Your task to perform on an android device: change notifications settings Image 0: 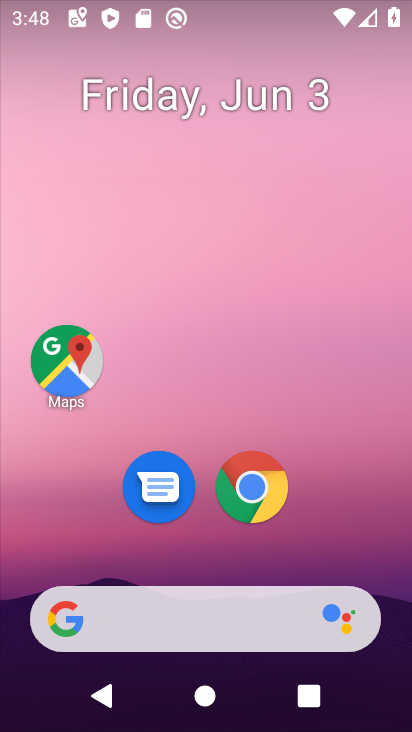
Step 0: drag from (312, 36) to (310, 0)
Your task to perform on an android device: change notifications settings Image 1: 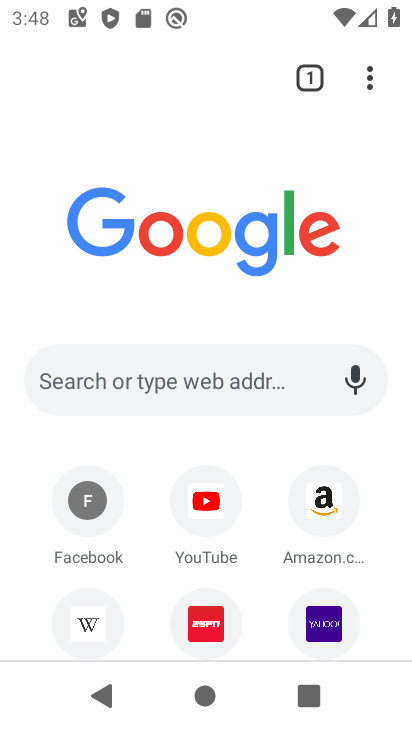
Step 1: drag from (374, 64) to (221, 558)
Your task to perform on an android device: change notifications settings Image 2: 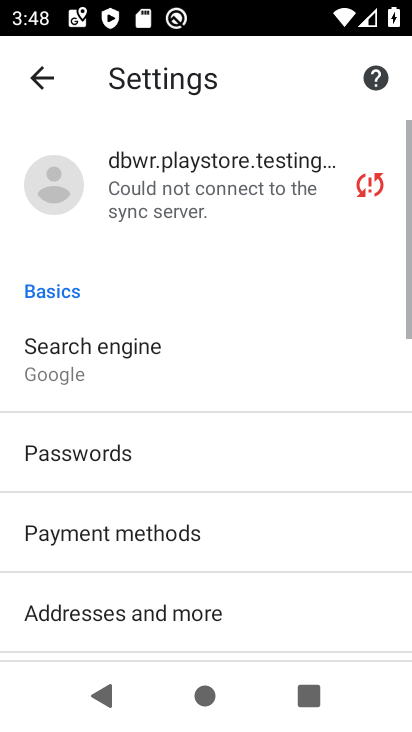
Step 2: drag from (194, 561) to (263, 159)
Your task to perform on an android device: change notifications settings Image 3: 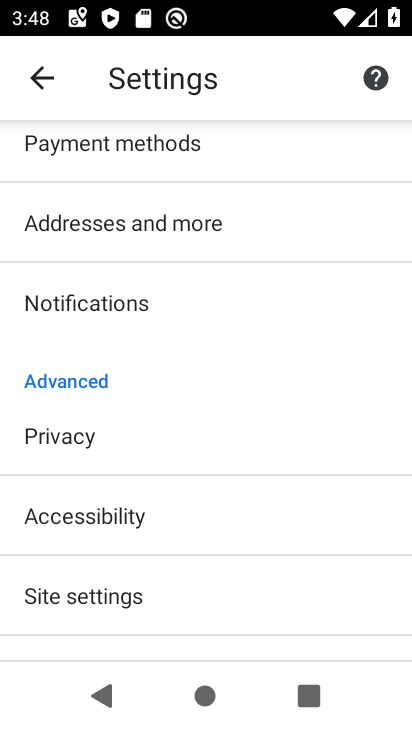
Step 3: click (164, 307)
Your task to perform on an android device: change notifications settings Image 4: 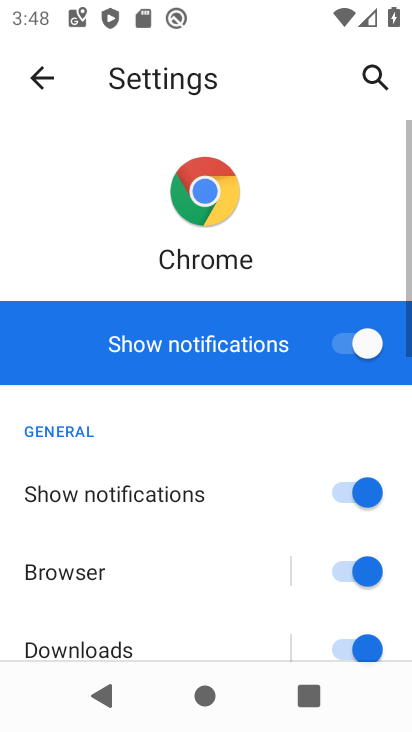
Step 4: drag from (220, 575) to (260, 200)
Your task to perform on an android device: change notifications settings Image 5: 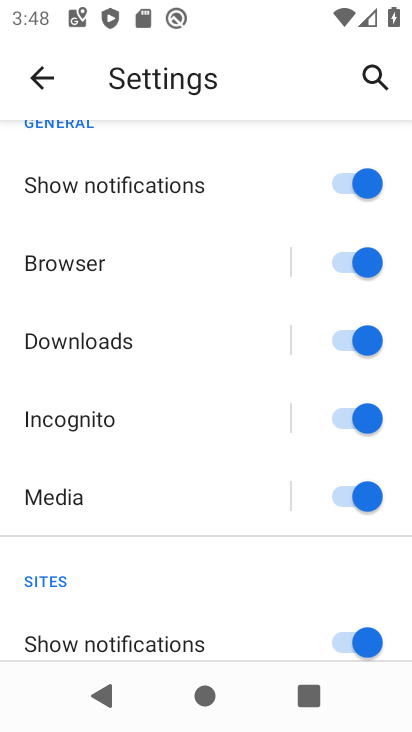
Step 5: drag from (236, 566) to (286, 221)
Your task to perform on an android device: change notifications settings Image 6: 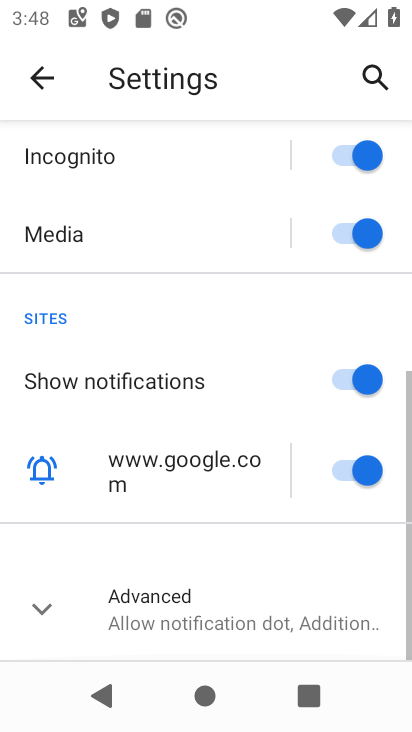
Step 6: drag from (266, 266) to (404, 468)
Your task to perform on an android device: change notifications settings Image 7: 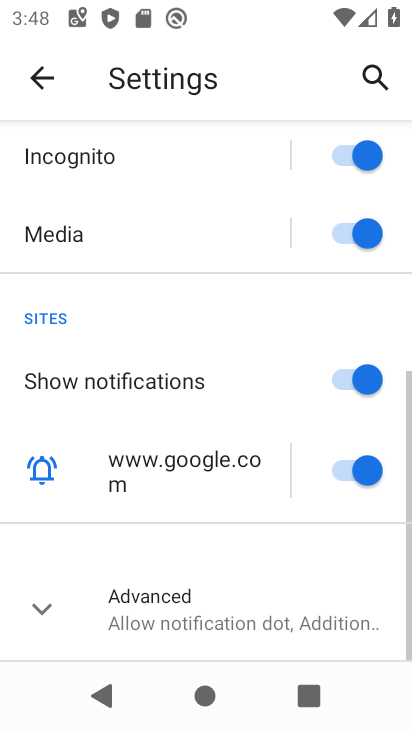
Step 7: drag from (227, 230) to (269, 714)
Your task to perform on an android device: change notifications settings Image 8: 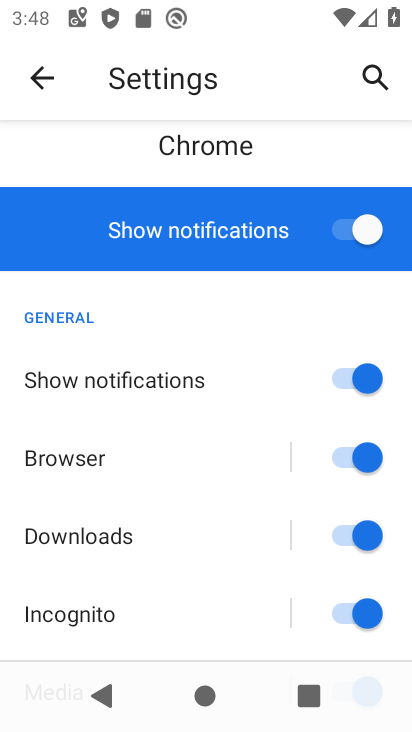
Step 8: click (376, 388)
Your task to perform on an android device: change notifications settings Image 9: 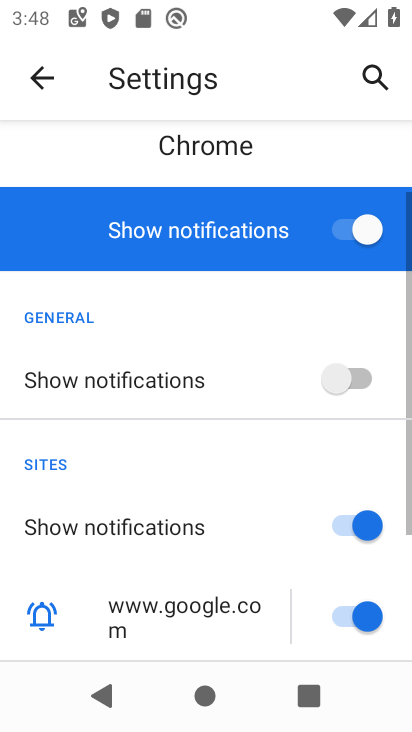
Step 9: task complete